Your task to perform on an android device: Go to Reddit.com Image 0: 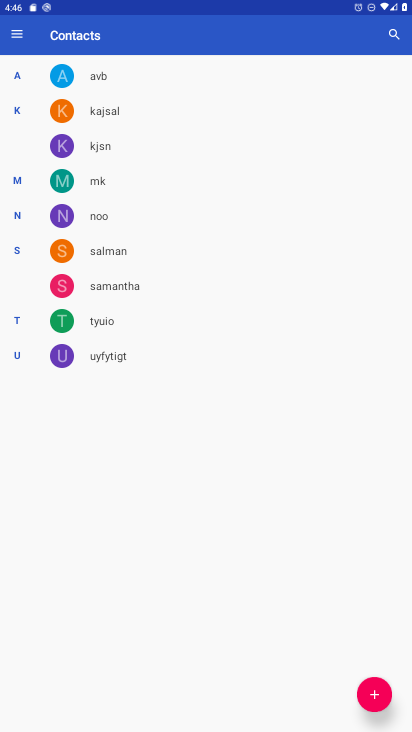
Step 0: press home button
Your task to perform on an android device: Go to Reddit.com Image 1: 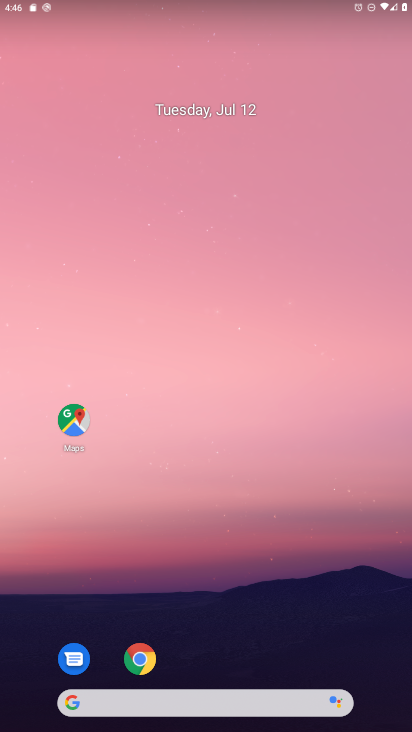
Step 1: click (137, 662)
Your task to perform on an android device: Go to Reddit.com Image 2: 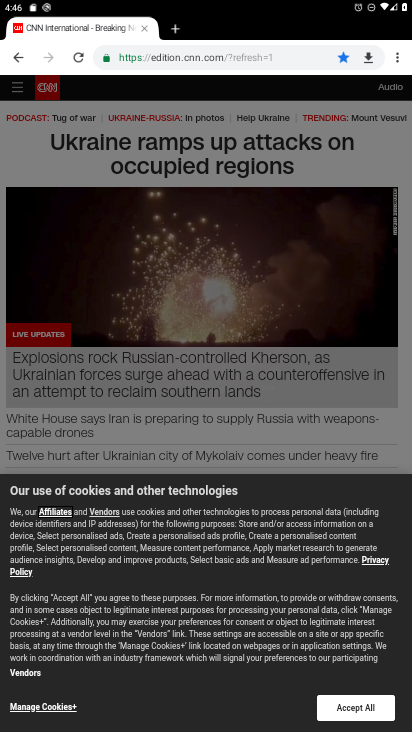
Step 2: click (210, 61)
Your task to perform on an android device: Go to Reddit.com Image 3: 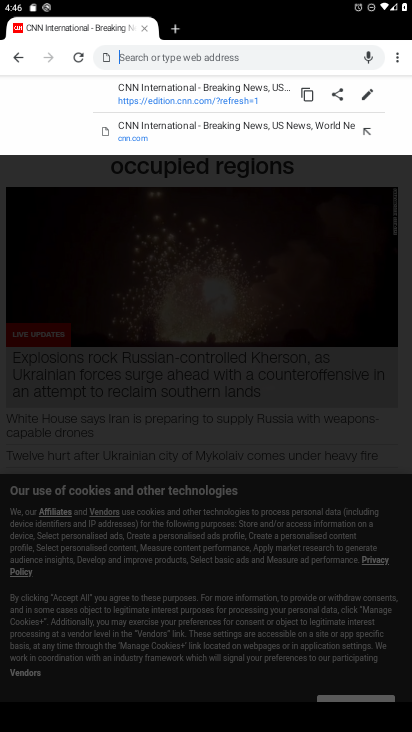
Step 3: type "www.reddit.com"
Your task to perform on an android device: Go to Reddit.com Image 4: 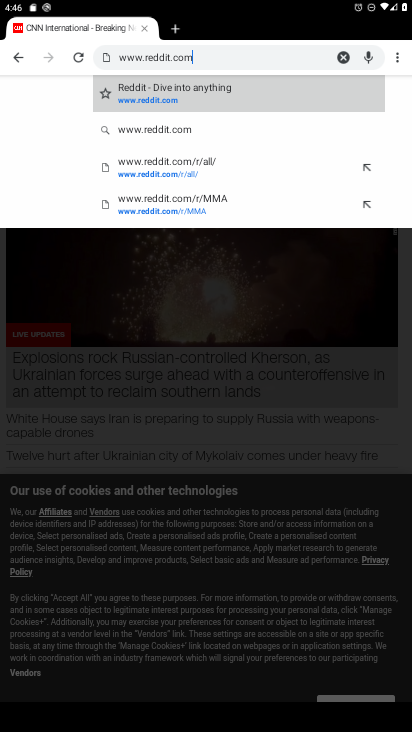
Step 4: click (145, 96)
Your task to perform on an android device: Go to Reddit.com Image 5: 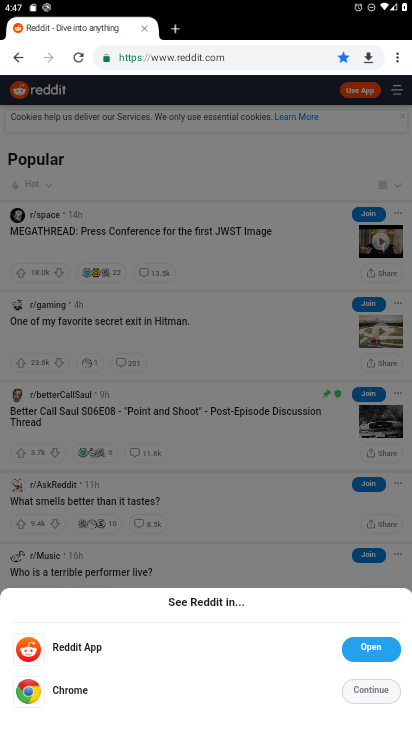
Step 5: task complete